Your task to perform on an android device: turn on location history Image 0: 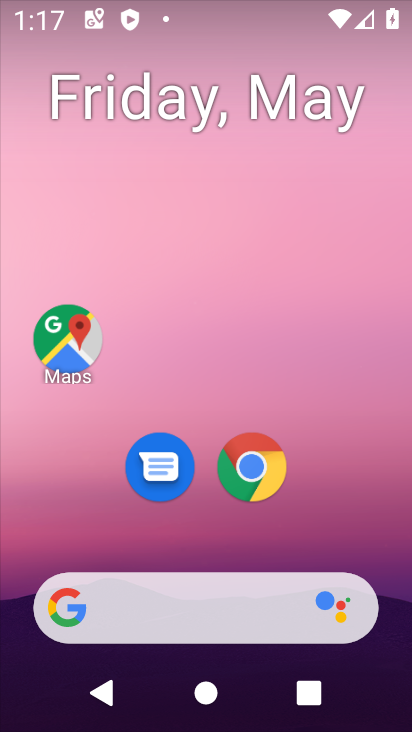
Step 0: click (51, 367)
Your task to perform on an android device: turn on location history Image 1: 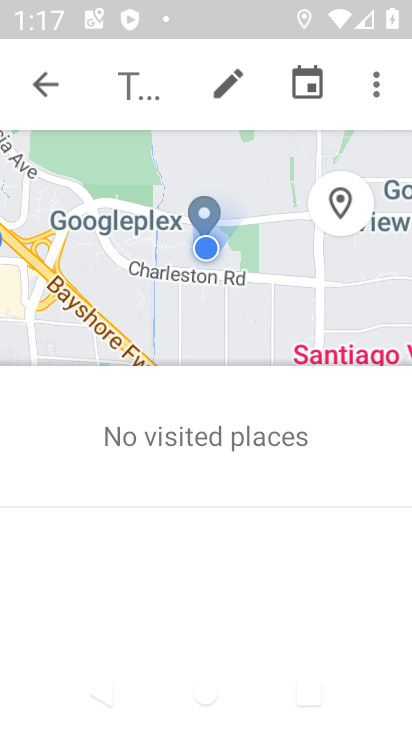
Step 1: click (54, 82)
Your task to perform on an android device: turn on location history Image 2: 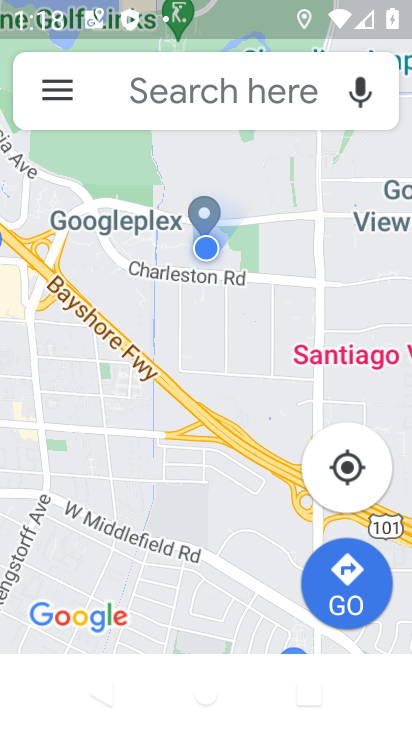
Step 2: click (27, 78)
Your task to perform on an android device: turn on location history Image 3: 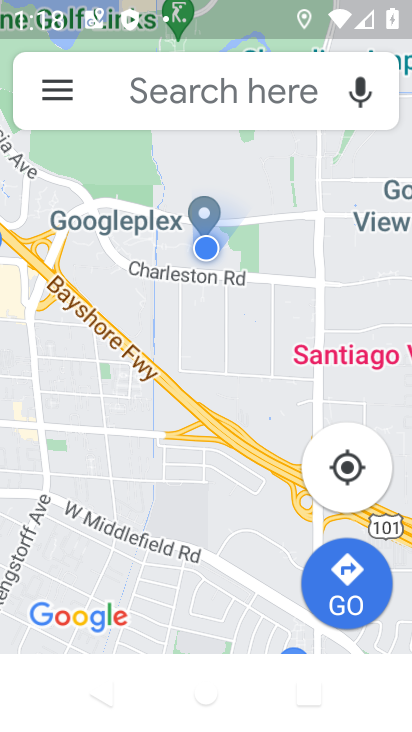
Step 3: click (51, 96)
Your task to perform on an android device: turn on location history Image 4: 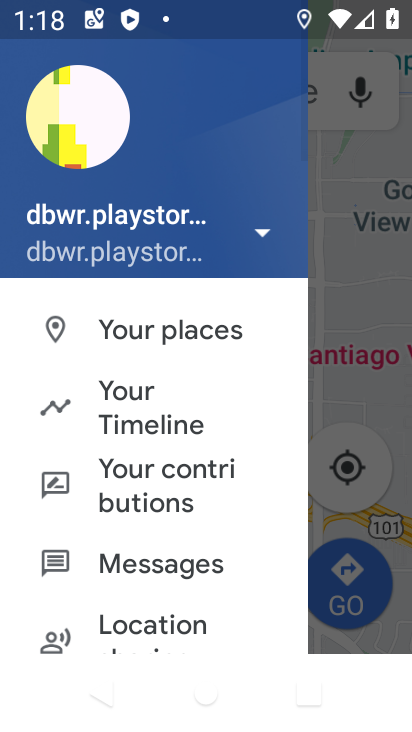
Step 4: click (189, 433)
Your task to perform on an android device: turn on location history Image 5: 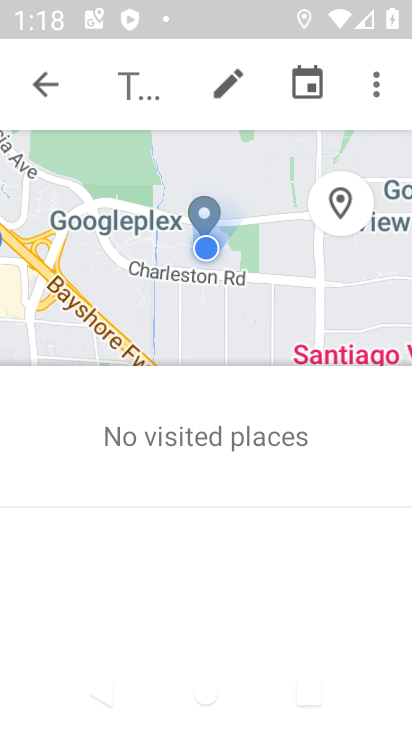
Step 5: click (374, 86)
Your task to perform on an android device: turn on location history Image 6: 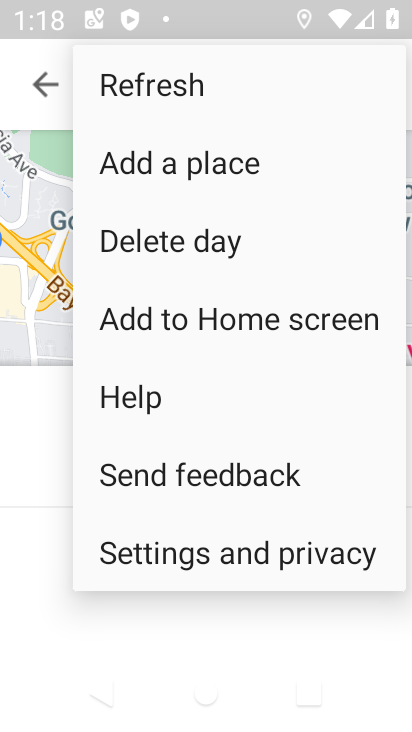
Step 6: click (197, 550)
Your task to perform on an android device: turn on location history Image 7: 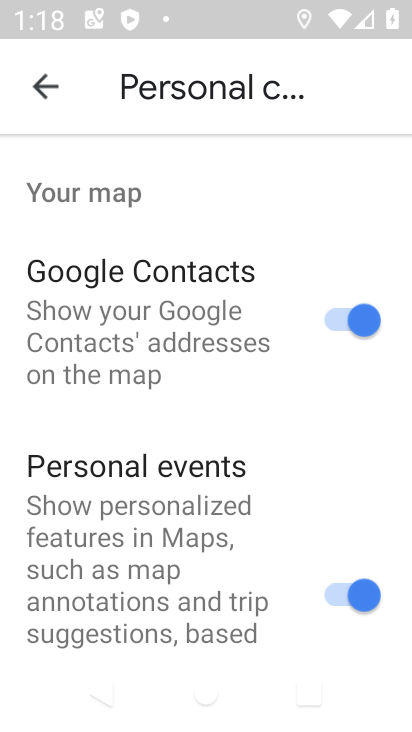
Step 7: drag from (194, 571) to (162, 263)
Your task to perform on an android device: turn on location history Image 8: 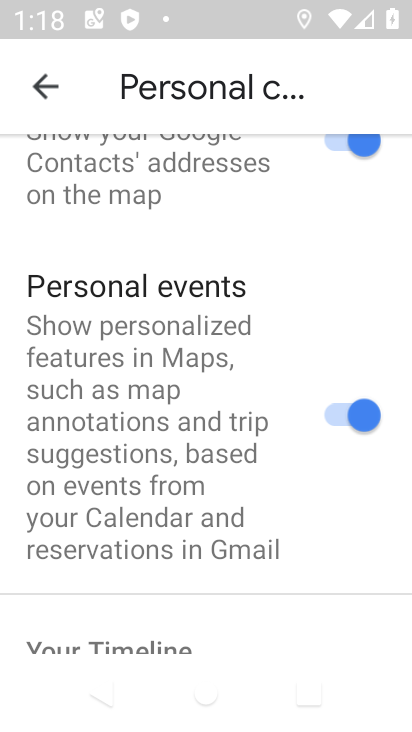
Step 8: drag from (192, 600) to (139, 238)
Your task to perform on an android device: turn on location history Image 9: 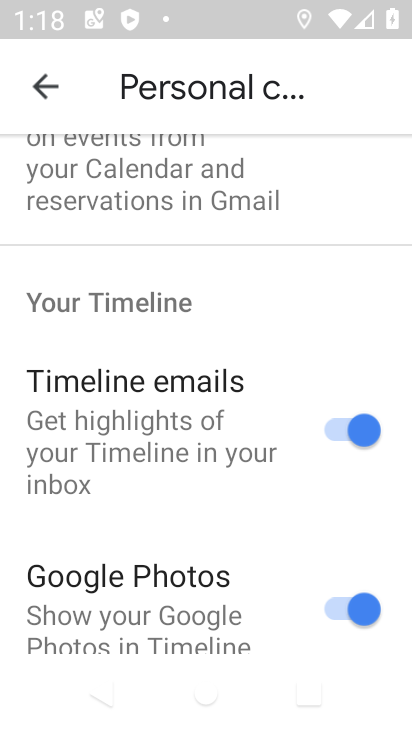
Step 9: drag from (160, 584) to (157, 316)
Your task to perform on an android device: turn on location history Image 10: 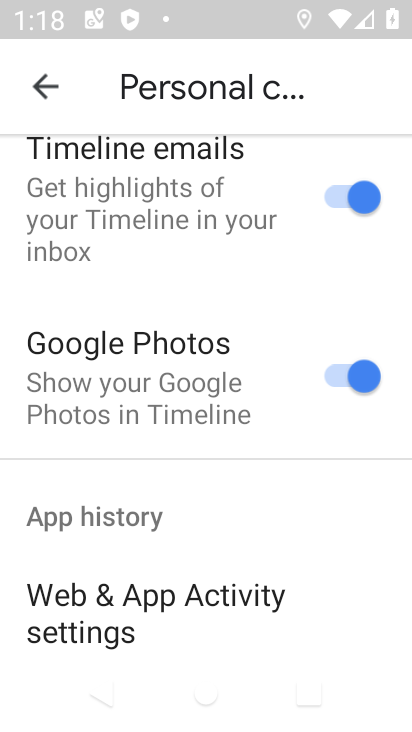
Step 10: drag from (128, 571) to (141, 203)
Your task to perform on an android device: turn on location history Image 11: 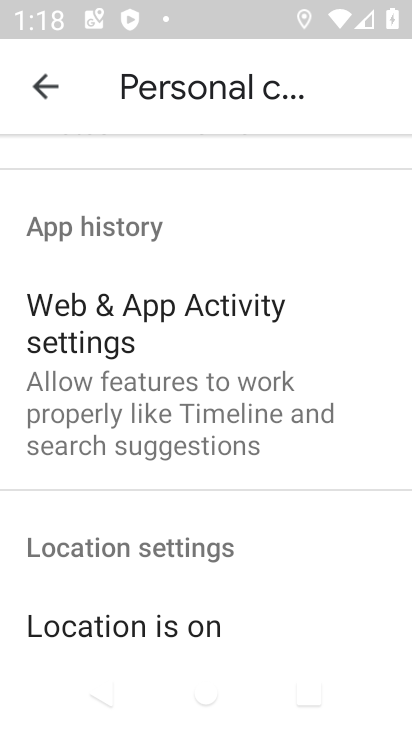
Step 11: drag from (200, 555) to (178, 64)
Your task to perform on an android device: turn on location history Image 12: 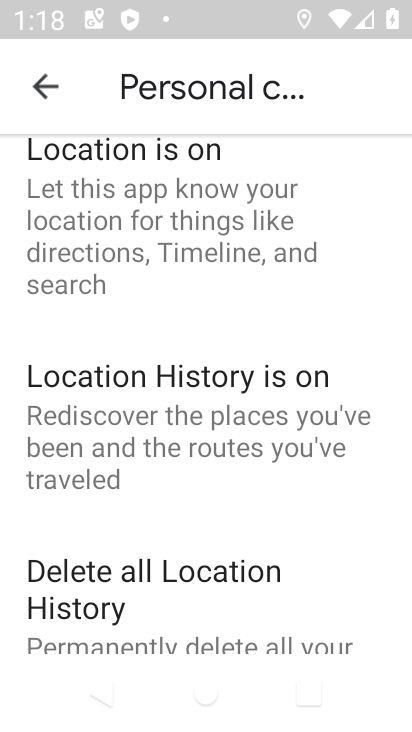
Step 12: click (196, 394)
Your task to perform on an android device: turn on location history Image 13: 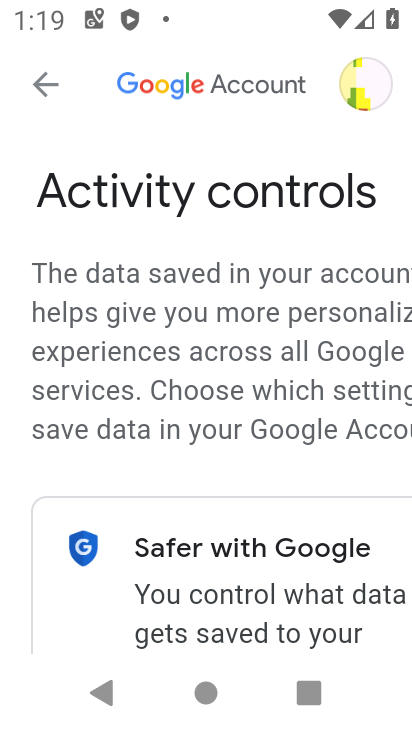
Step 13: task complete